Your task to perform on an android device: open app "Reddit" Image 0: 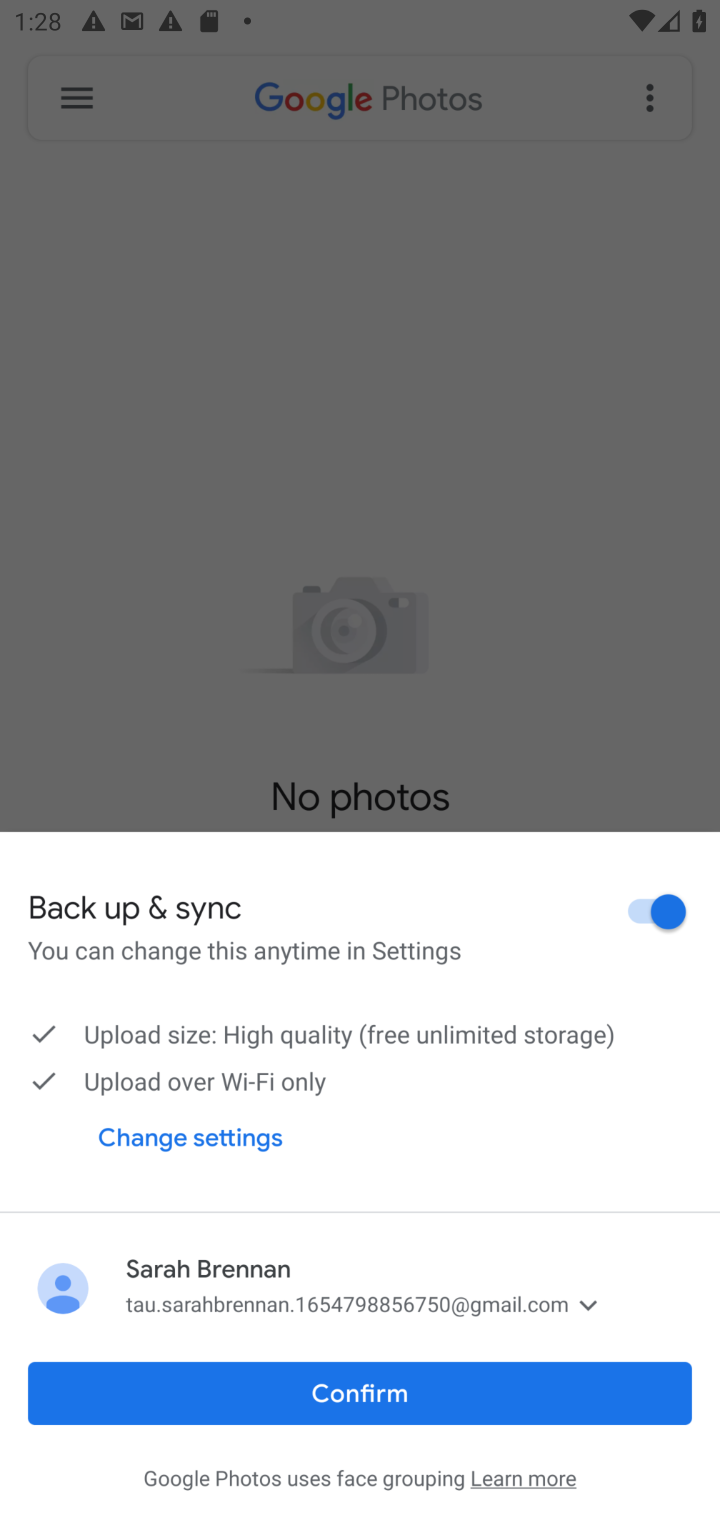
Step 0: press home button
Your task to perform on an android device: open app "Reddit" Image 1: 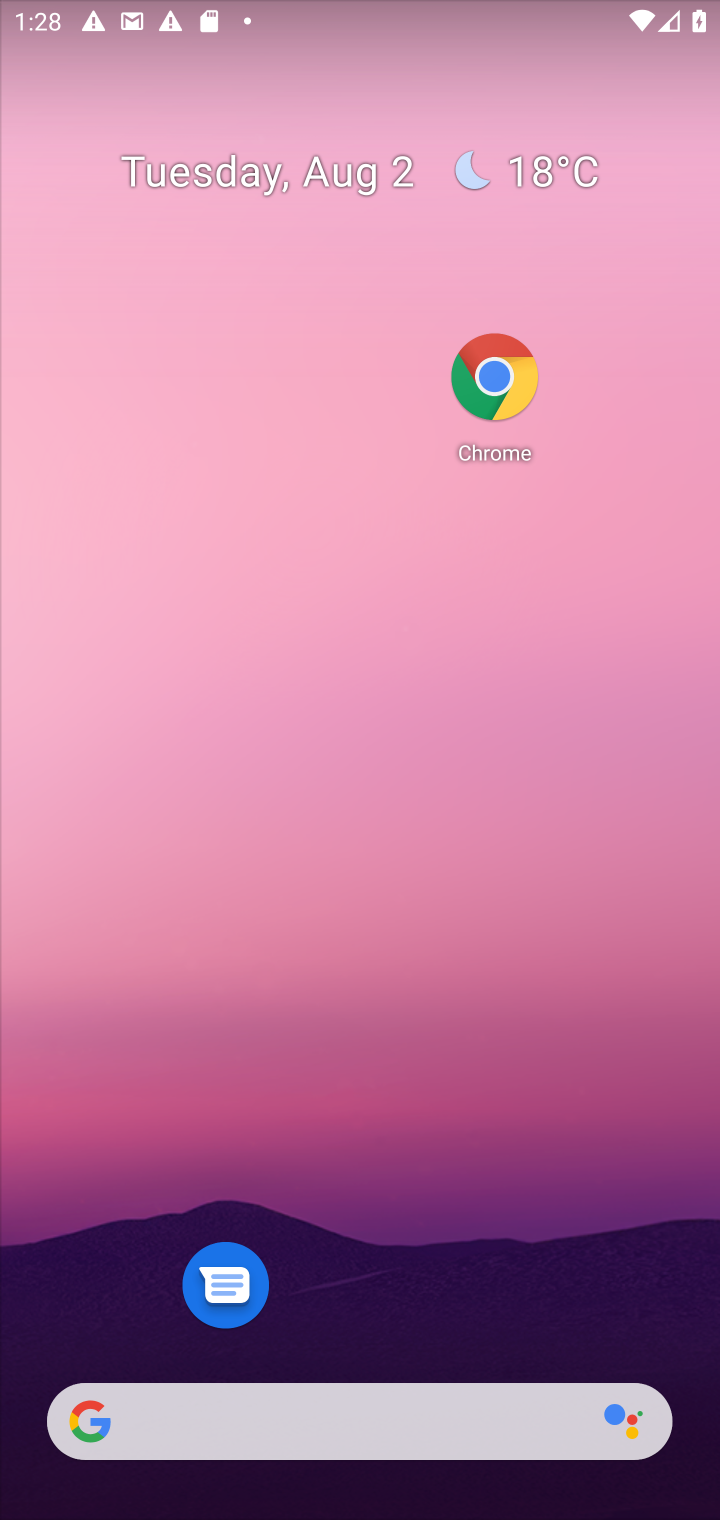
Step 1: drag from (566, 1206) to (571, 375)
Your task to perform on an android device: open app "Reddit" Image 2: 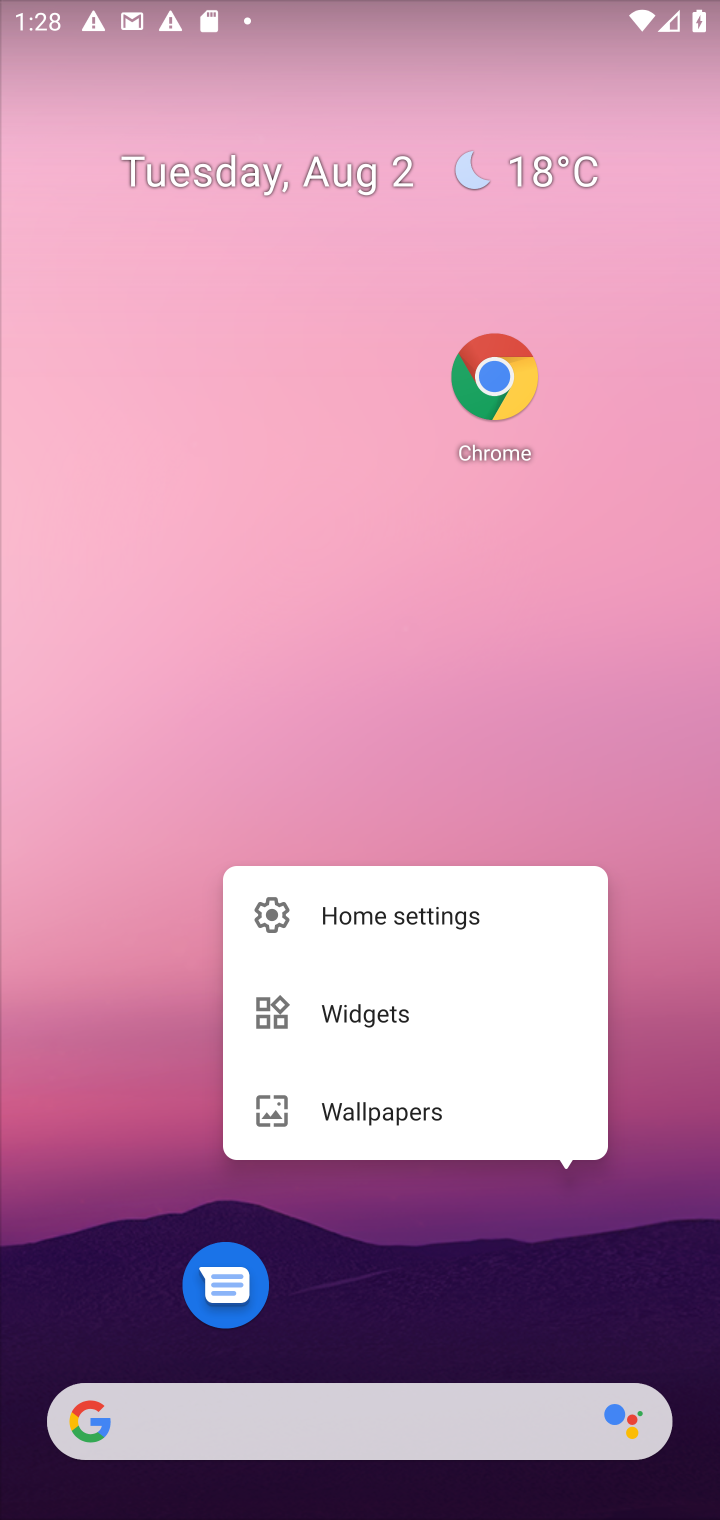
Step 2: click (409, 1330)
Your task to perform on an android device: open app "Reddit" Image 3: 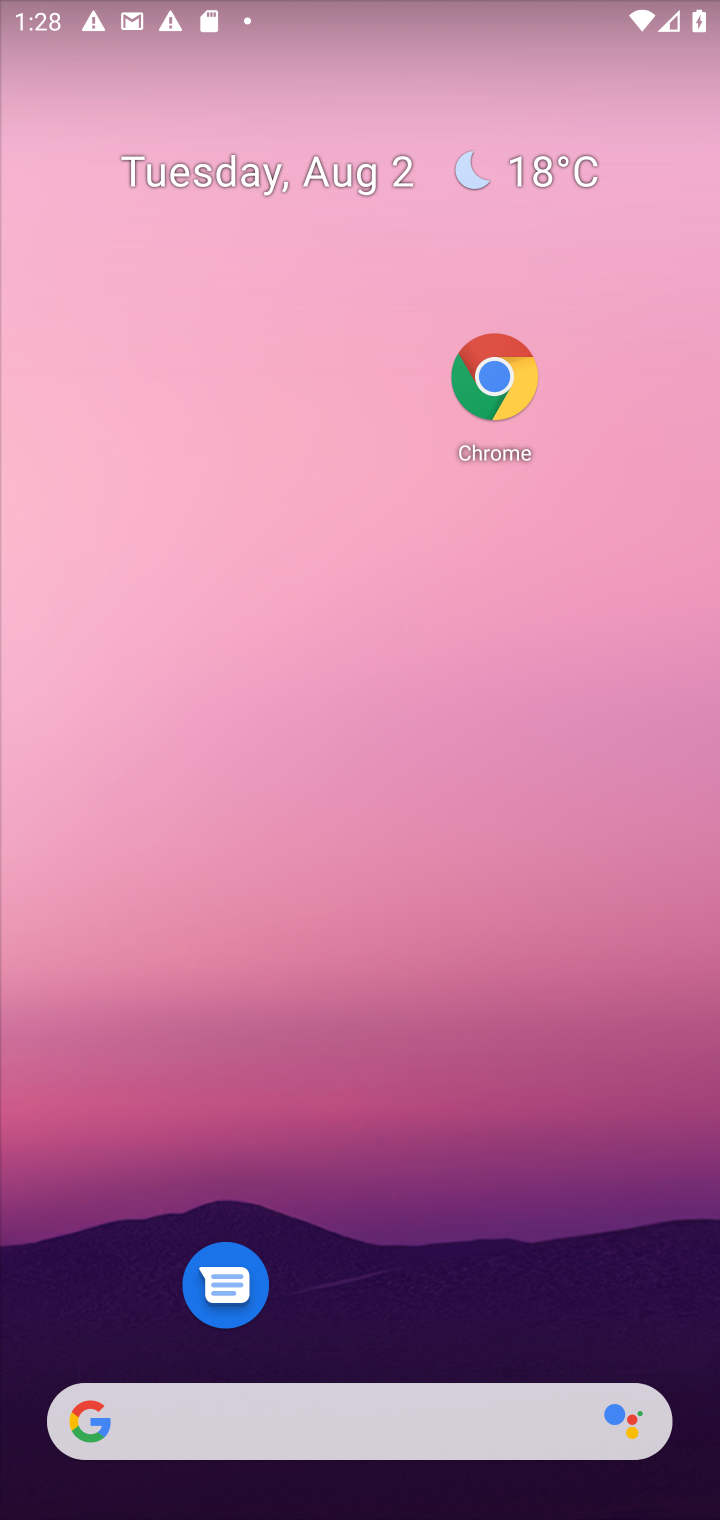
Step 3: drag from (492, 1111) to (623, 148)
Your task to perform on an android device: open app "Reddit" Image 4: 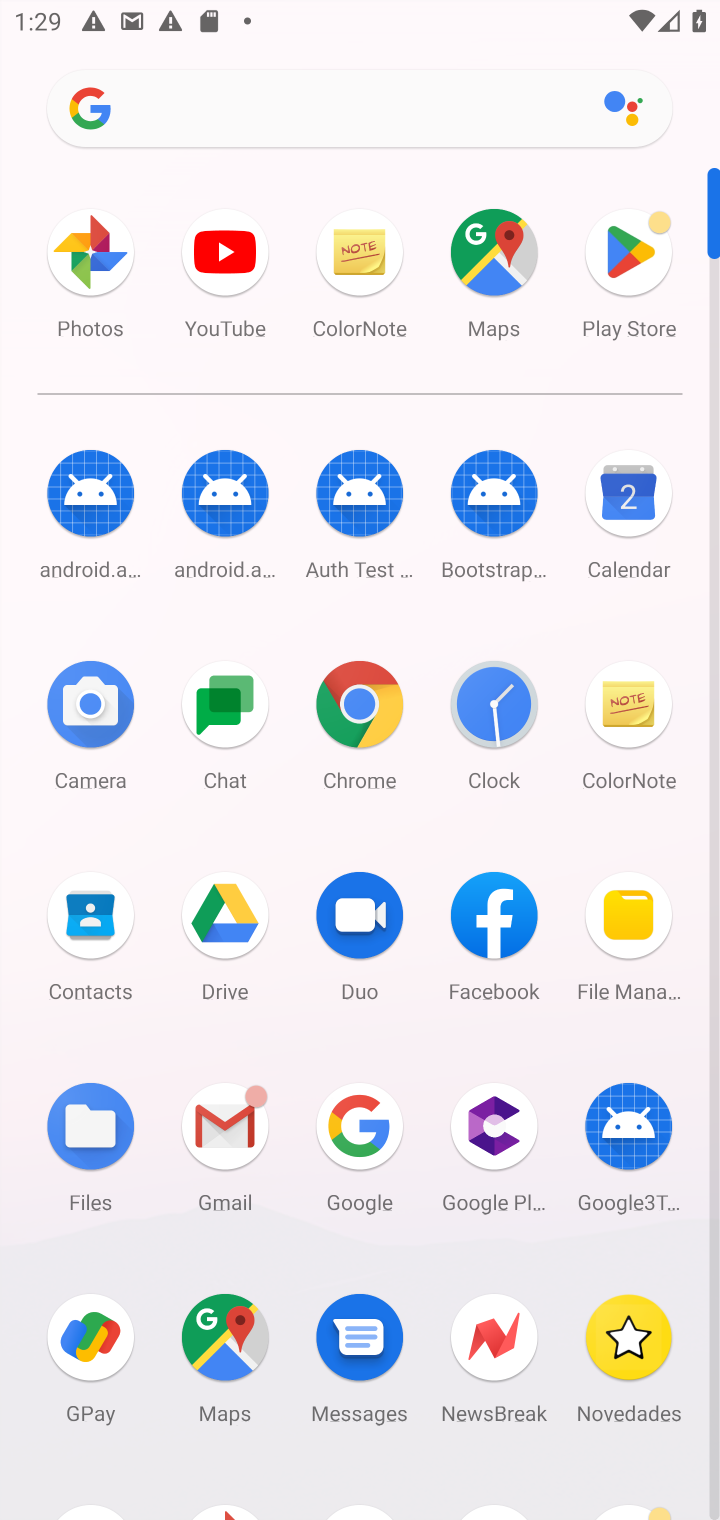
Step 4: click (635, 225)
Your task to perform on an android device: open app "Reddit" Image 5: 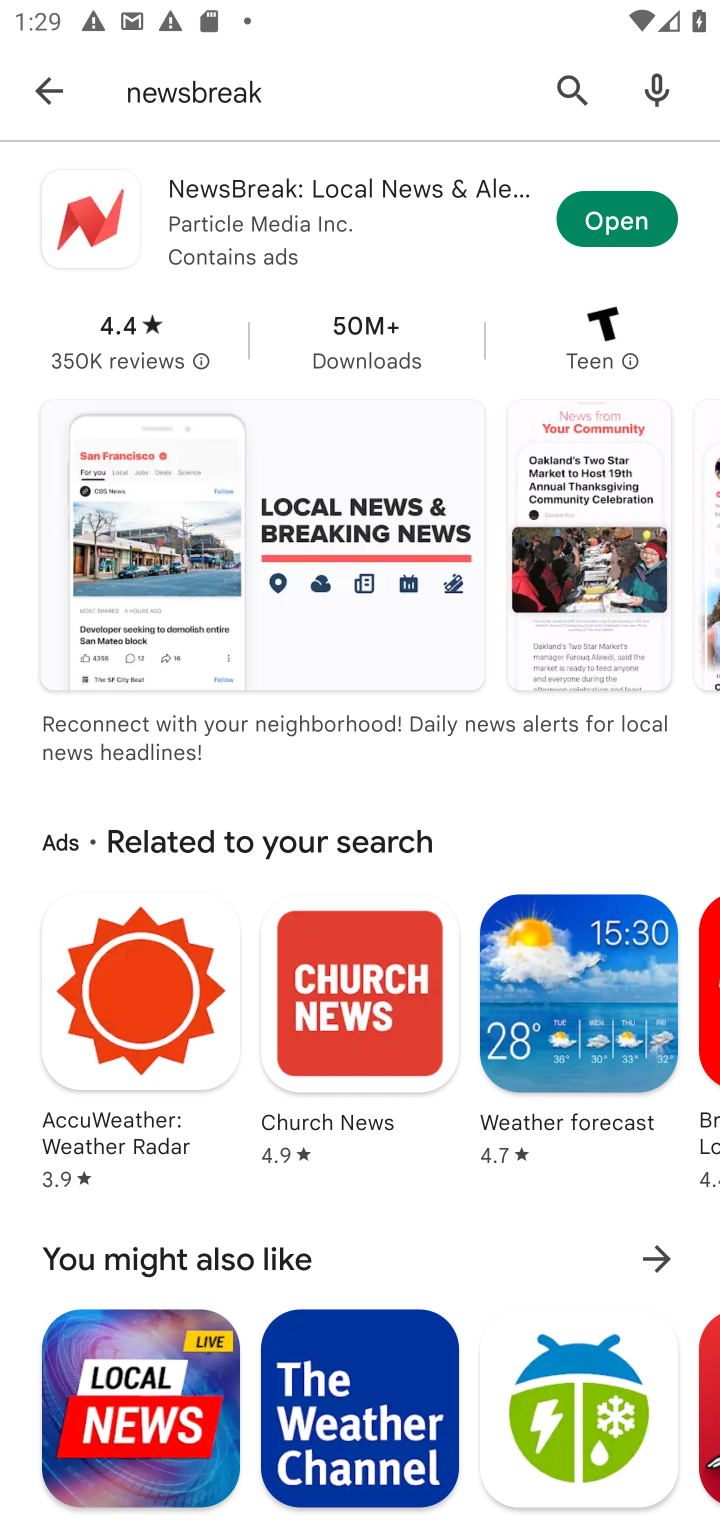
Step 5: click (563, 91)
Your task to perform on an android device: open app "Reddit" Image 6: 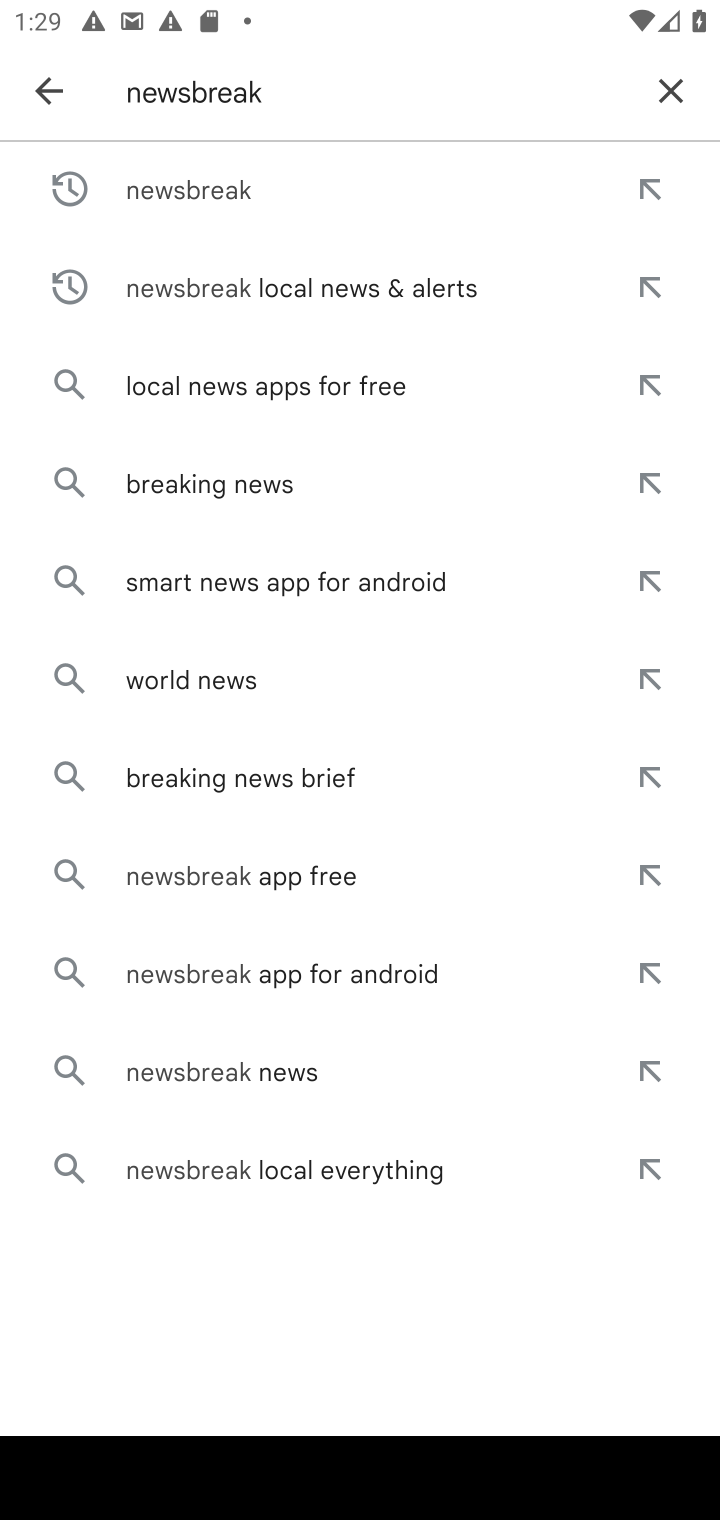
Step 6: click (665, 94)
Your task to perform on an android device: open app "Reddit" Image 7: 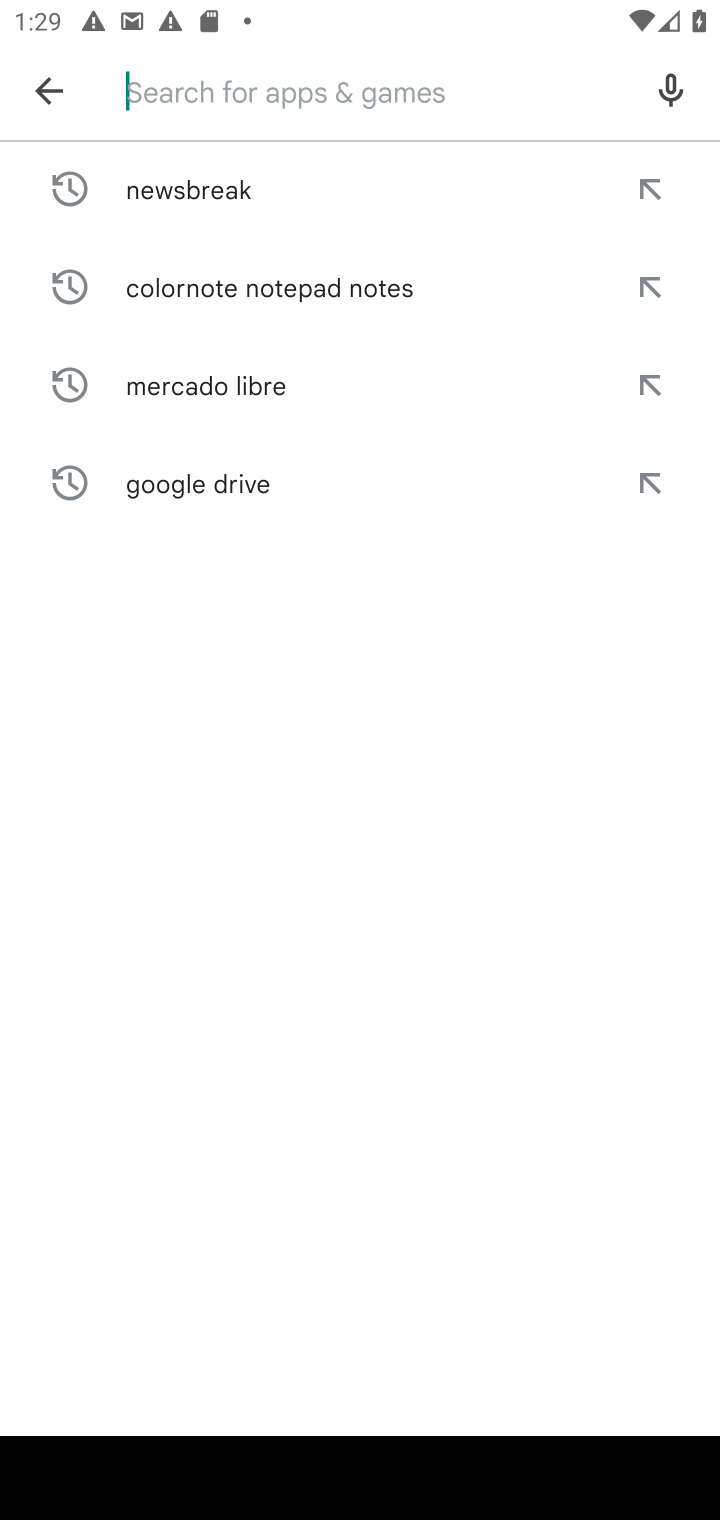
Step 7: type "Reddit"
Your task to perform on an android device: open app "Reddit" Image 8: 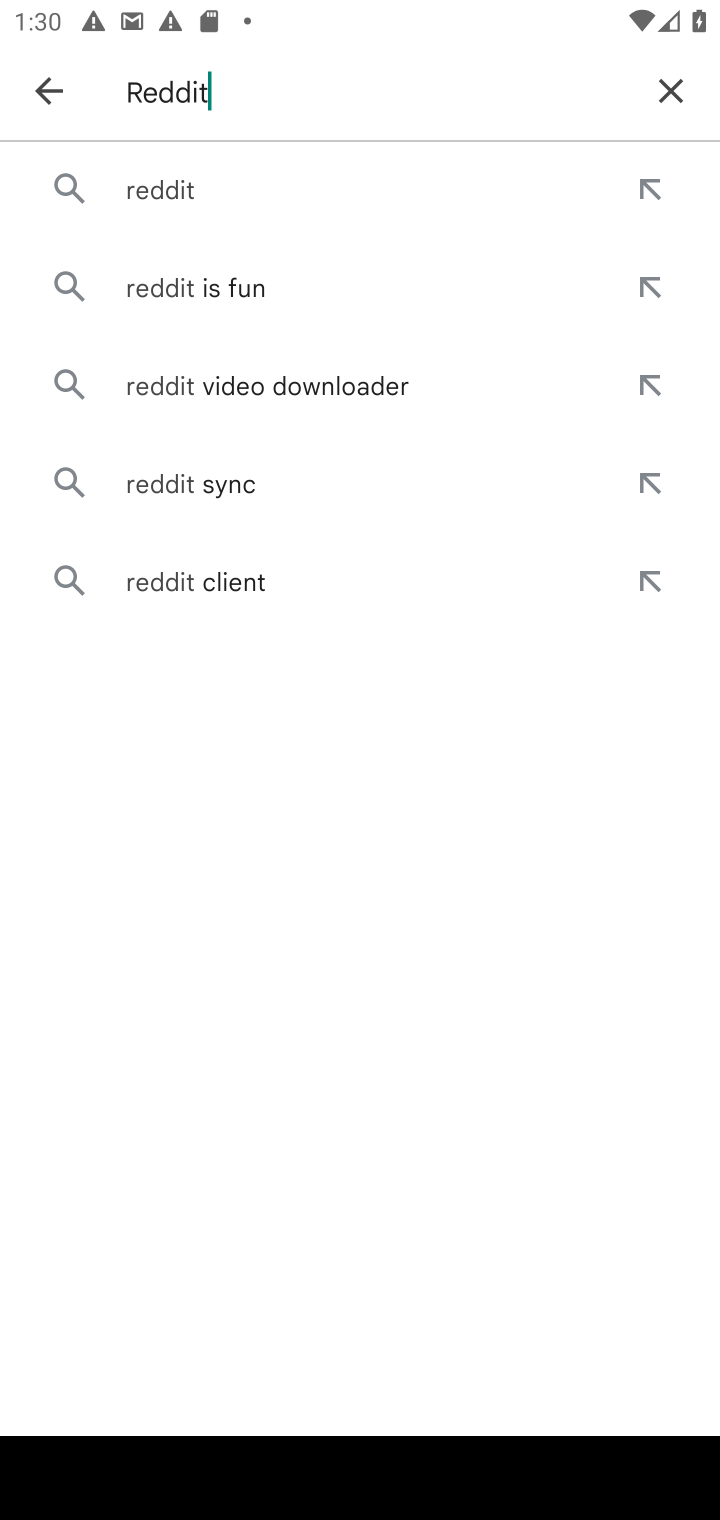
Step 8: click (190, 196)
Your task to perform on an android device: open app "Reddit" Image 9: 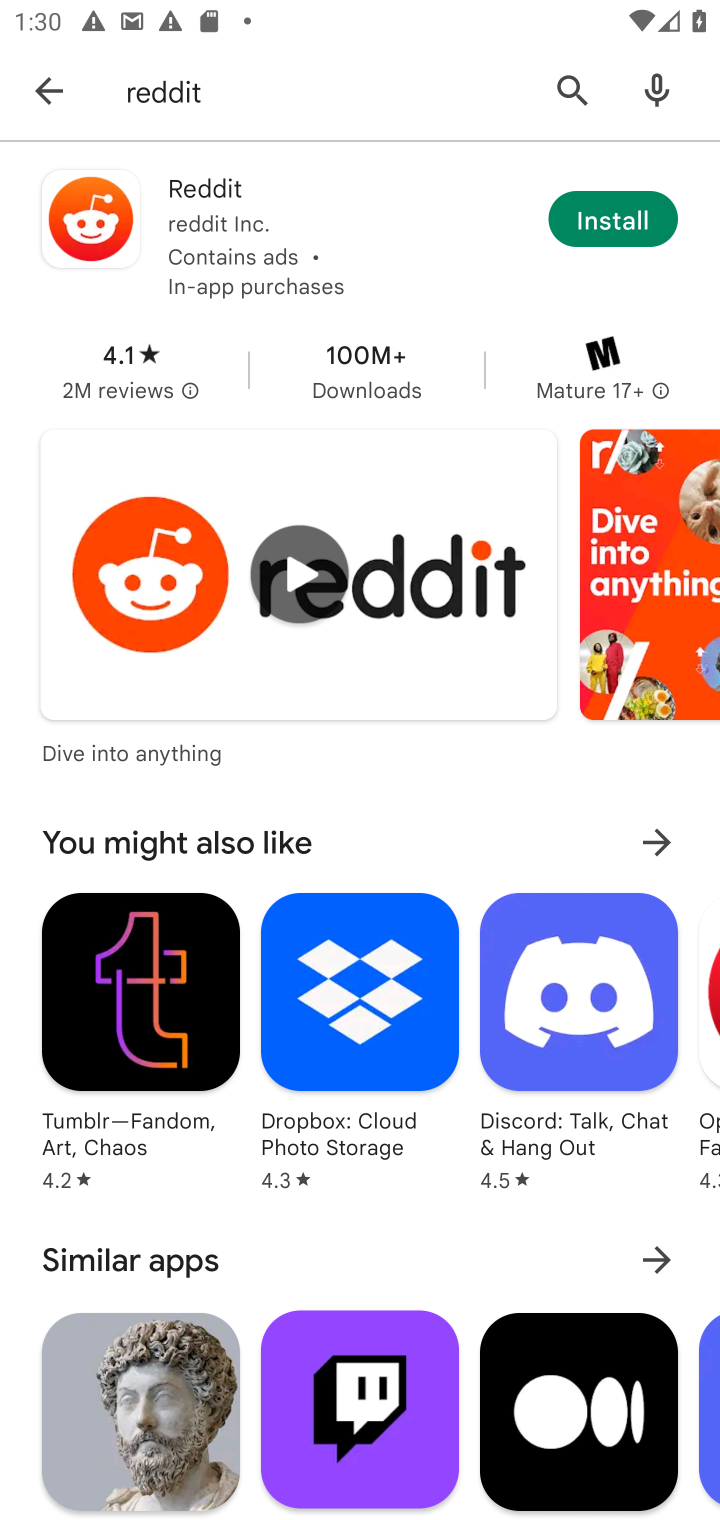
Step 9: click (631, 211)
Your task to perform on an android device: open app "Reddit" Image 10: 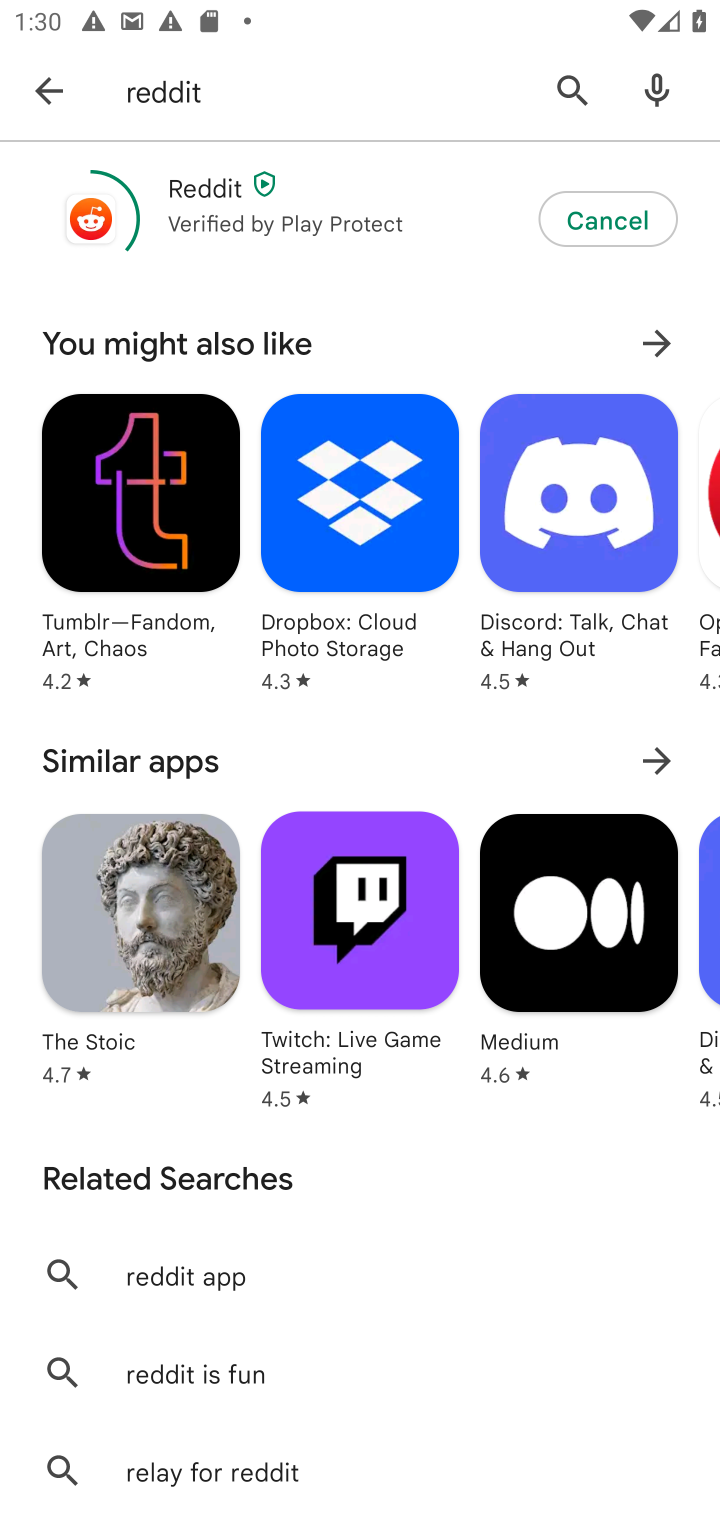
Step 10: click (631, 211)
Your task to perform on an android device: open app "Reddit" Image 11: 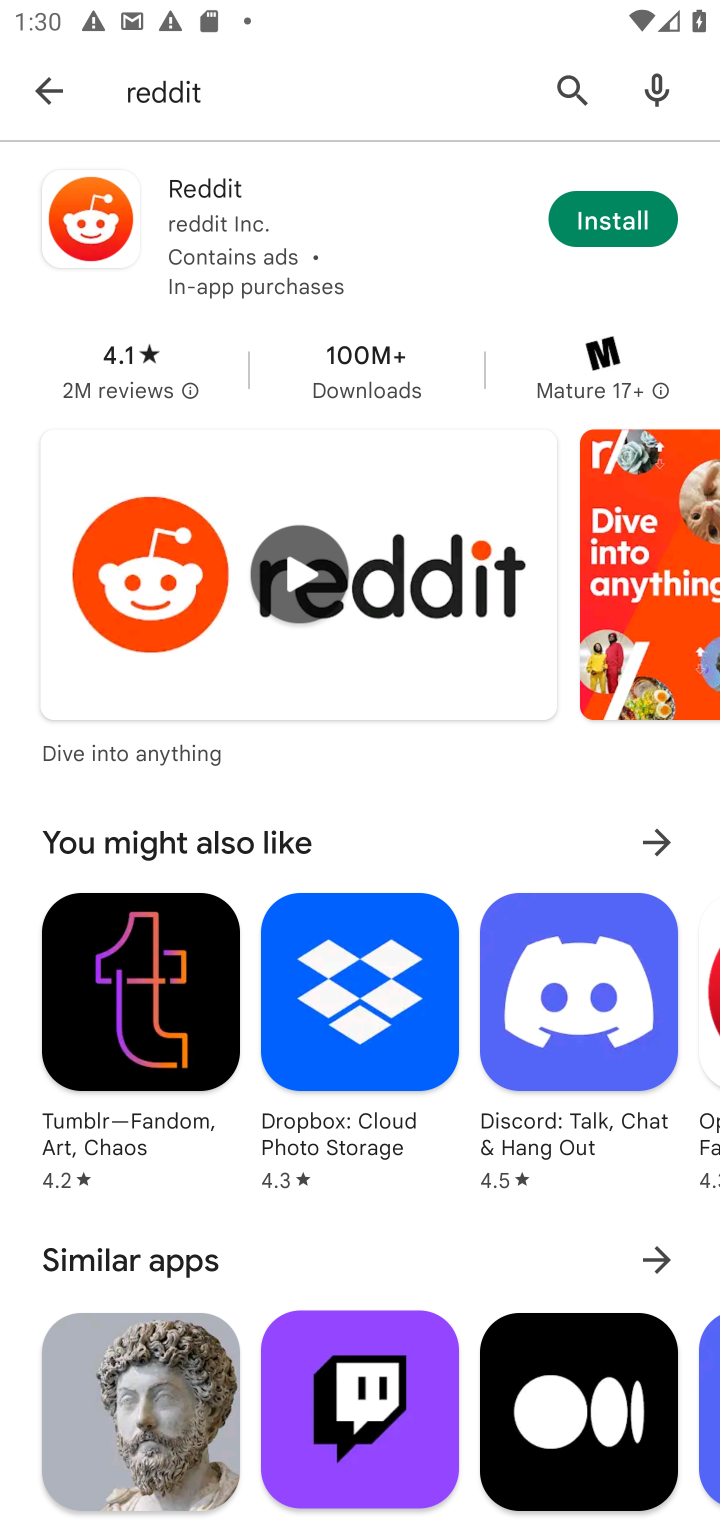
Step 11: task complete